Your task to perform on an android device: Open Maps and search for coffee Image 0: 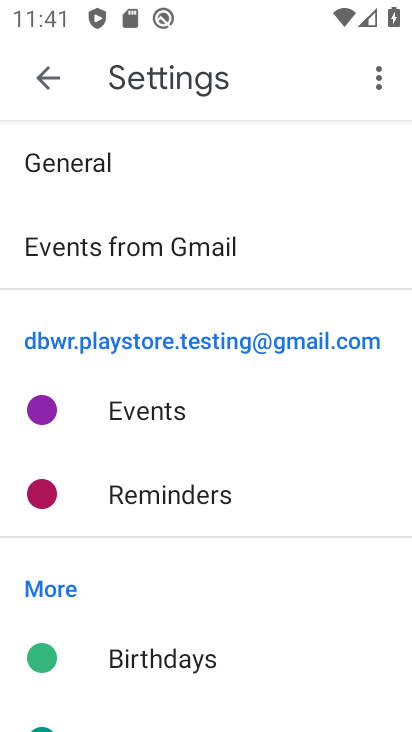
Step 0: press home button
Your task to perform on an android device: Open Maps and search for coffee Image 1: 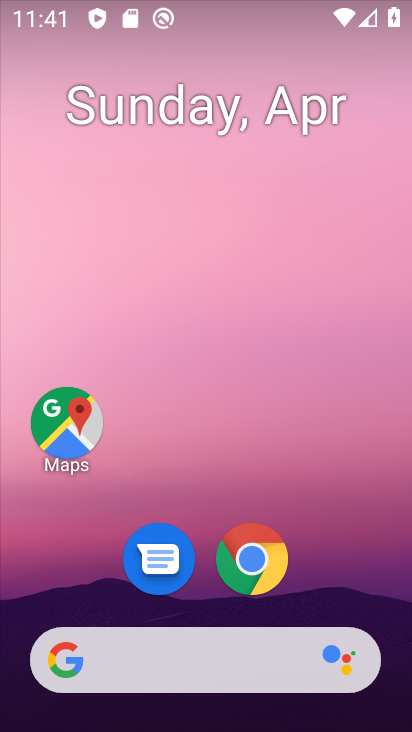
Step 1: drag from (331, 546) to (248, 160)
Your task to perform on an android device: Open Maps and search for coffee Image 2: 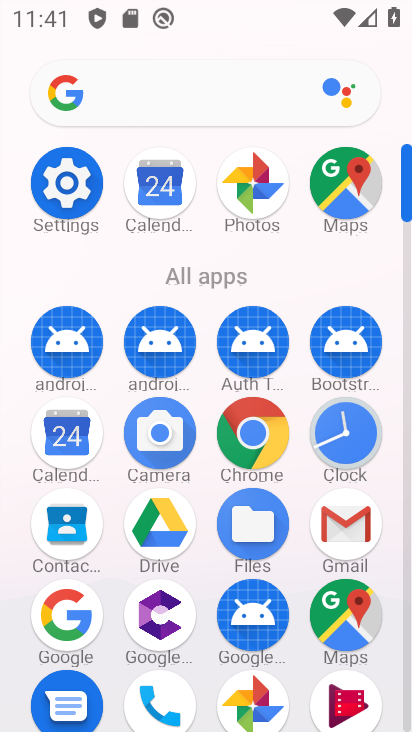
Step 2: click (345, 610)
Your task to perform on an android device: Open Maps and search for coffee Image 3: 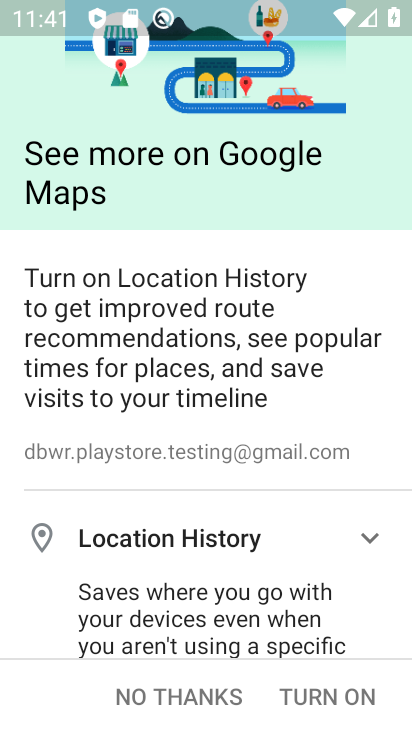
Step 3: click (328, 690)
Your task to perform on an android device: Open Maps and search for coffee Image 4: 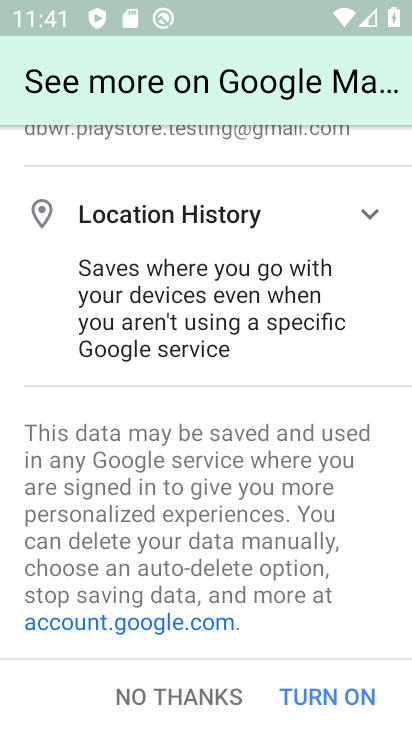
Step 4: click (328, 690)
Your task to perform on an android device: Open Maps and search for coffee Image 5: 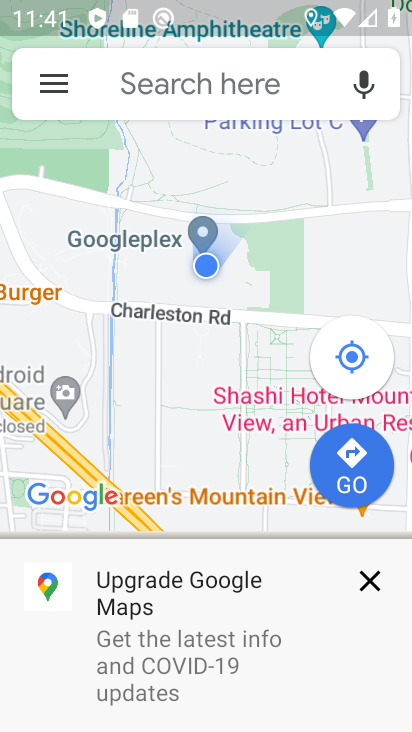
Step 5: click (369, 587)
Your task to perform on an android device: Open Maps and search for coffee Image 6: 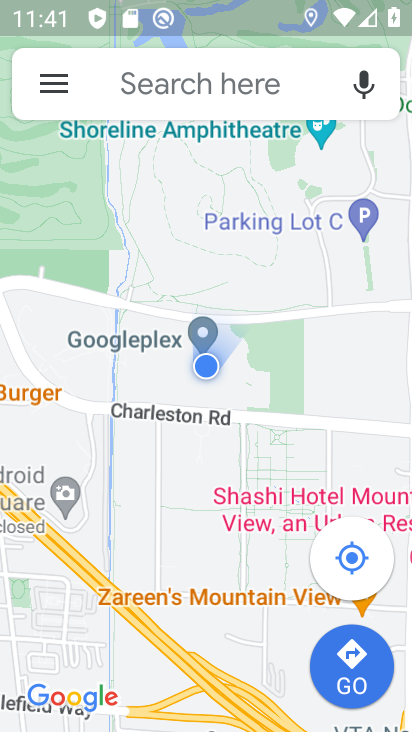
Step 6: click (228, 66)
Your task to perform on an android device: Open Maps and search for coffee Image 7: 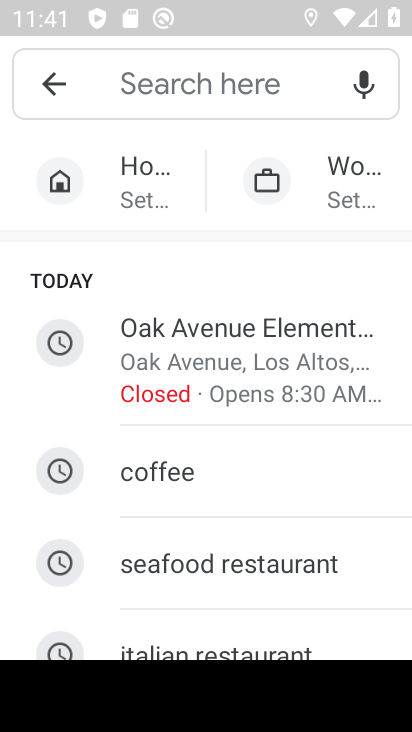
Step 7: click (277, 476)
Your task to perform on an android device: Open Maps and search for coffee Image 8: 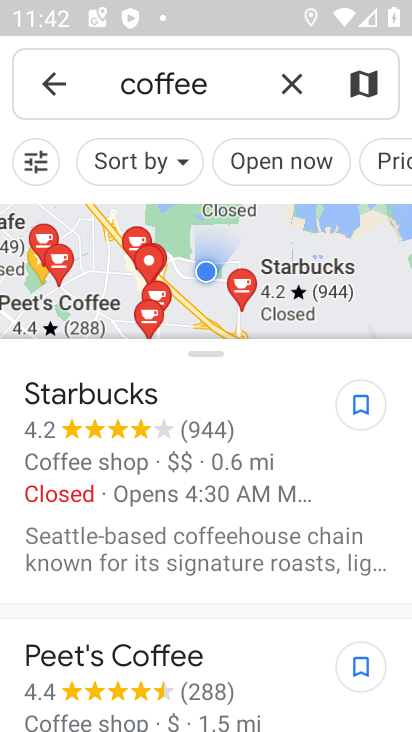
Step 8: task complete